Your task to perform on an android device: Open eBay Image 0: 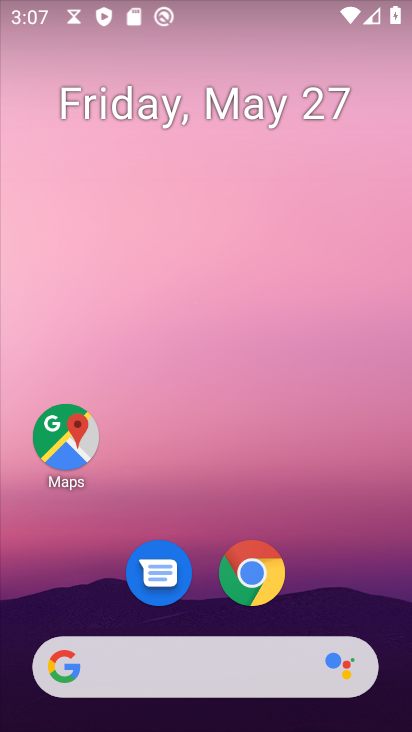
Step 0: click (245, 565)
Your task to perform on an android device: Open eBay Image 1: 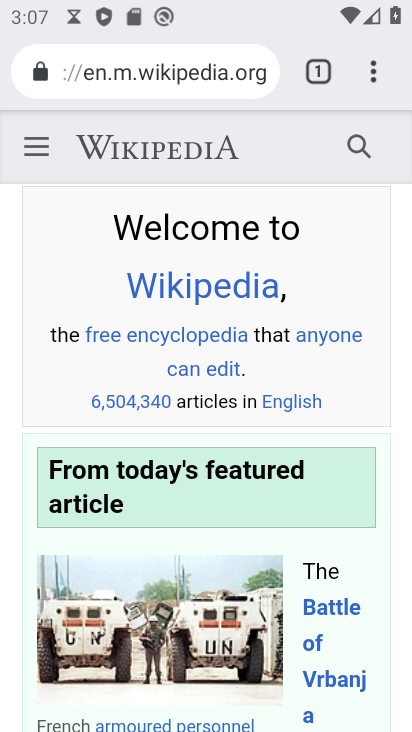
Step 1: click (156, 82)
Your task to perform on an android device: Open eBay Image 2: 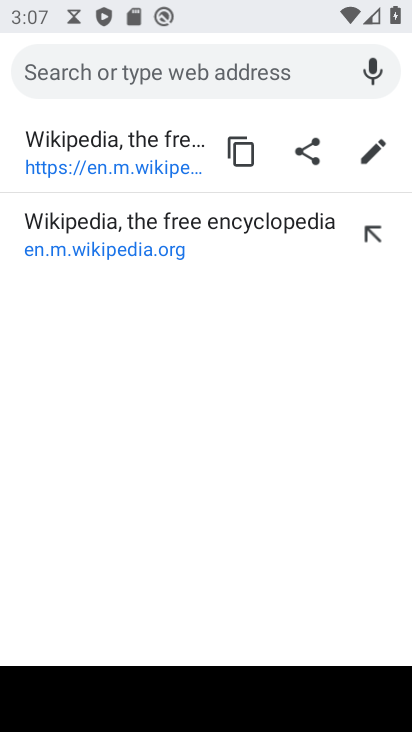
Step 2: type "ebay"
Your task to perform on an android device: Open eBay Image 3: 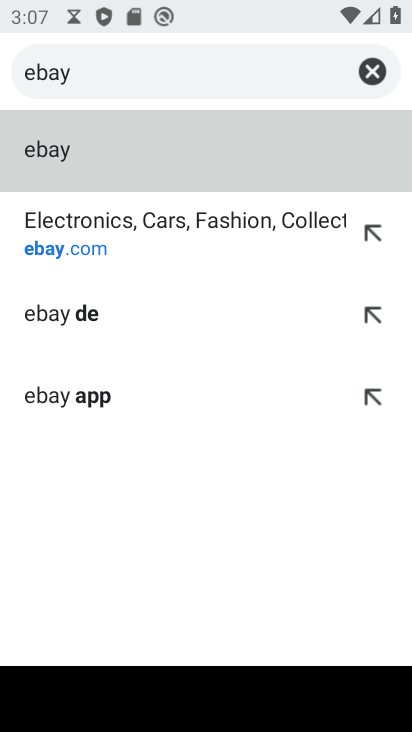
Step 3: click (22, 154)
Your task to perform on an android device: Open eBay Image 4: 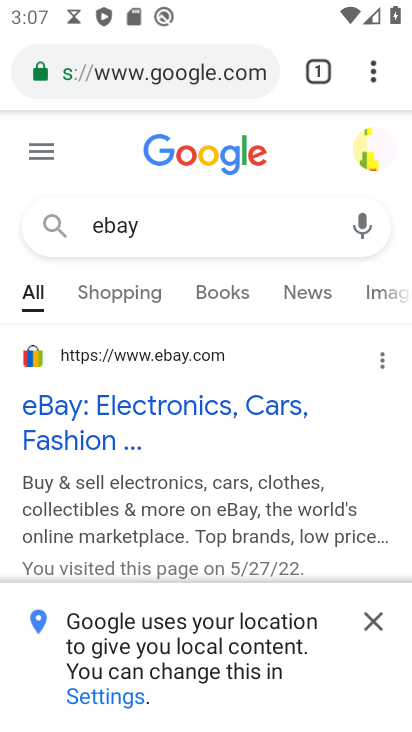
Step 4: click (59, 430)
Your task to perform on an android device: Open eBay Image 5: 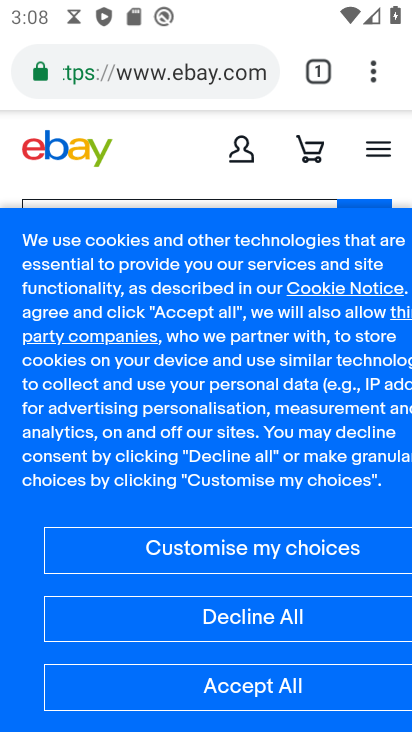
Step 5: task complete